Your task to perform on an android device: search for starred emails in the gmail app Image 0: 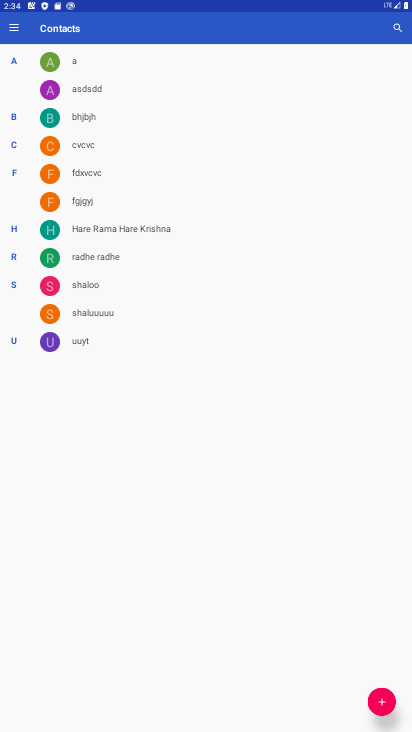
Step 0: press home button
Your task to perform on an android device: search for starred emails in the gmail app Image 1: 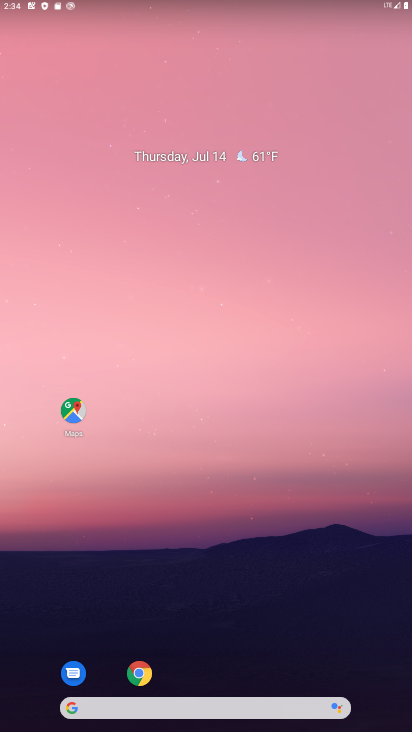
Step 1: drag from (184, 677) to (232, 2)
Your task to perform on an android device: search for starred emails in the gmail app Image 2: 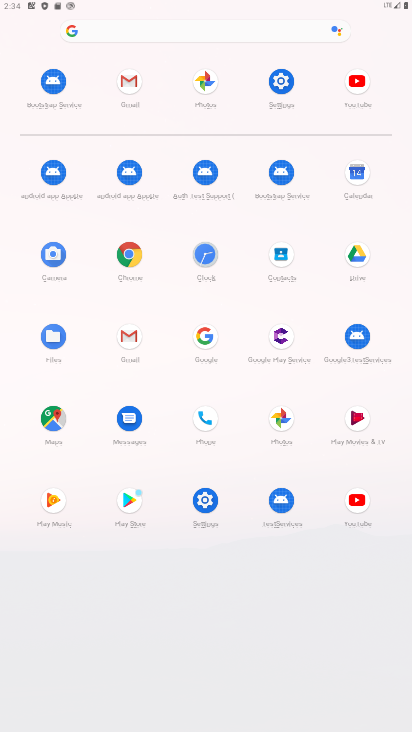
Step 2: click (124, 80)
Your task to perform on an android device: search for starred emails in the gmail app Image 3: 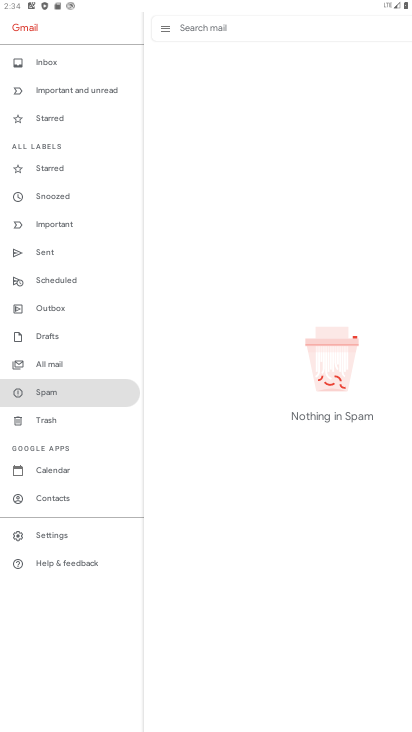
Step 3: click (49, 167)
Your task to perform on an android device: search for starred emails in the gmail app Image 4: 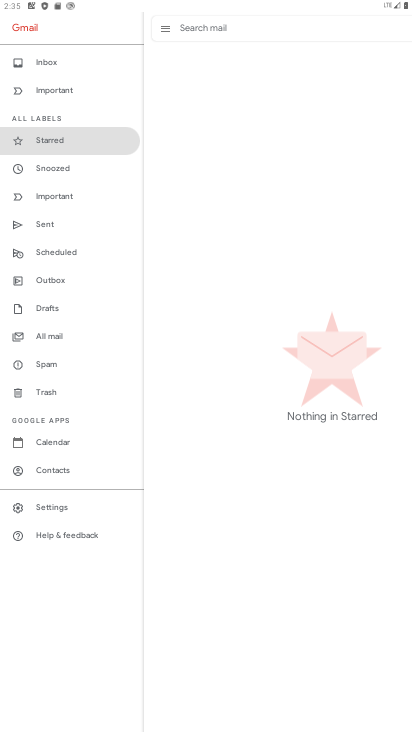
Step 4: task complete